Your task to perform on an android device: remove spam from my inbox in the gmail app Image 0: 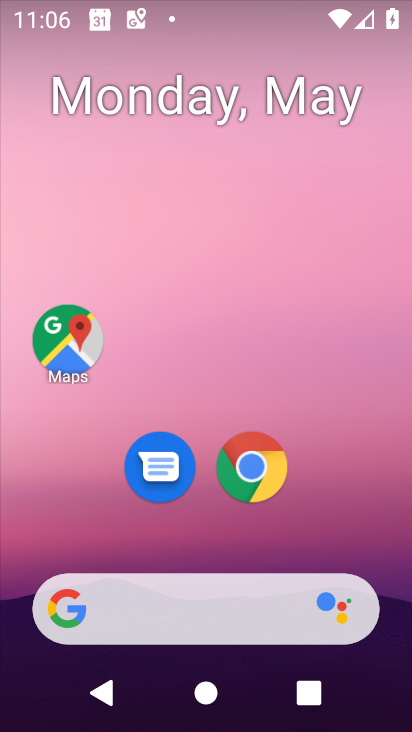
Step 0: drag from (362, 556) to (214, 0)
Your task to perform on an android device: remove spam from my inbox in the gmail app Image 1: 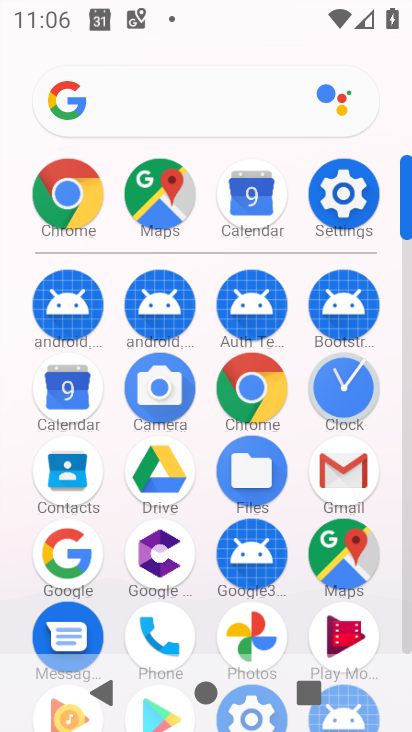
Step 1: click (326, 473)
Your task to perform on an android device: remove spam from my inbox in the gmail app Image 2: 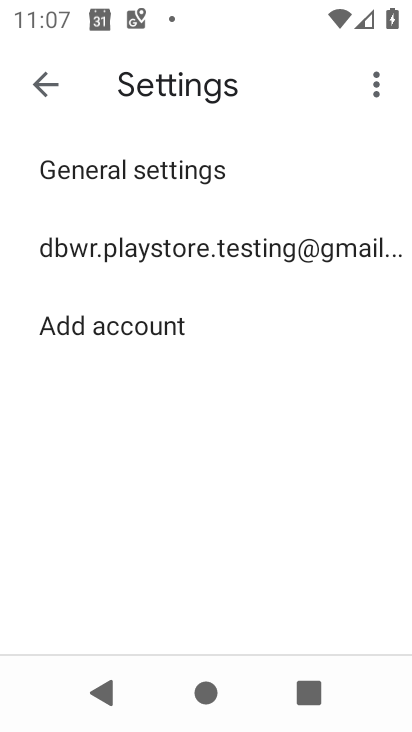
Step 2: click (142, 250)
Your task to perform on an android device: remove spam from my inbox in the gmail app Image 3: 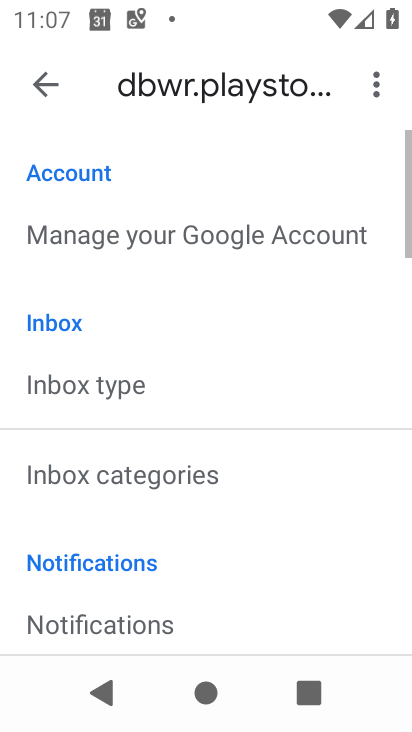
Step 3: click (143, 251)
Your task to perform on an android device: remove spam from my inbox in the gmail app Image 4: 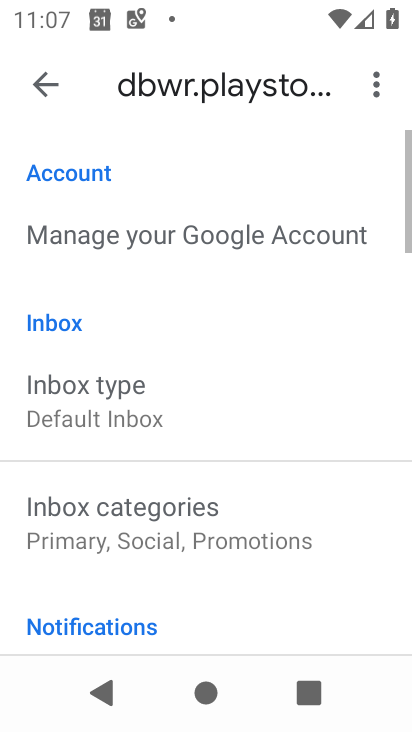
Step 4: click (143, 251)
Your task to perform on an android device: remove spam from my inbox in the gmail app Image 5: 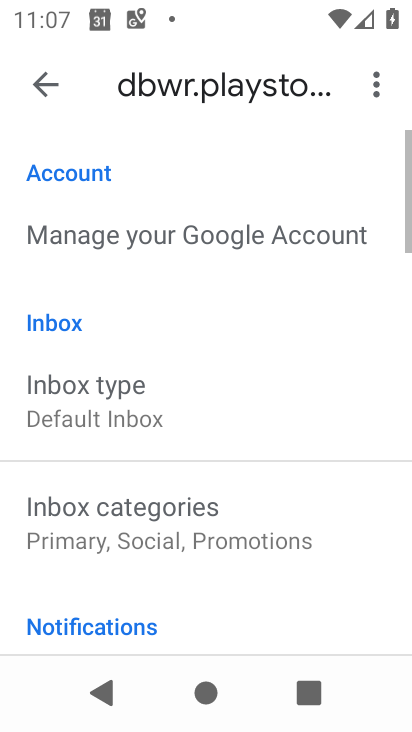
Step 5: click (44, 81)
Your task to perform on an android device: remove spam from my inbox in the gmail app Image 6: 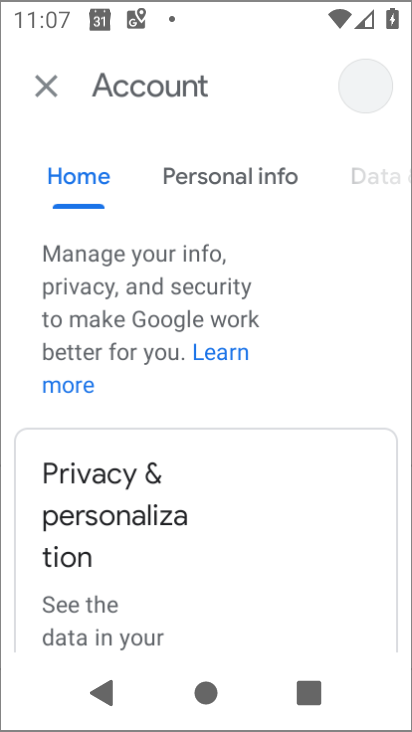
Step 6: click (46, 81)
Your task to perform on an android device: remove spam from my inbox in the gmail app Image 7: 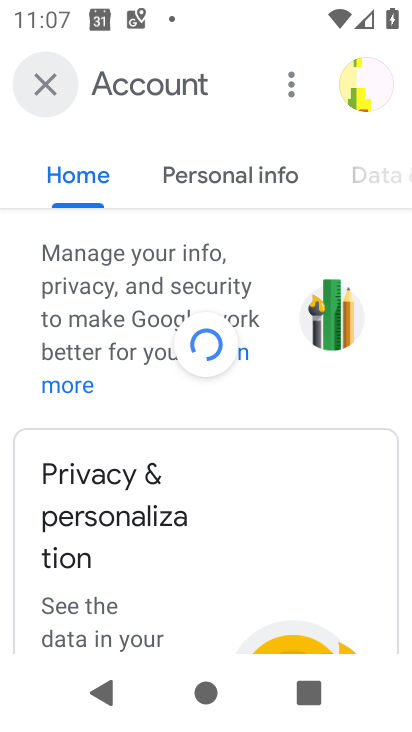
Step 7: click (47, 82)
Your task to perform on an android device: remove spam from my inbox in the gmail app Image 8: 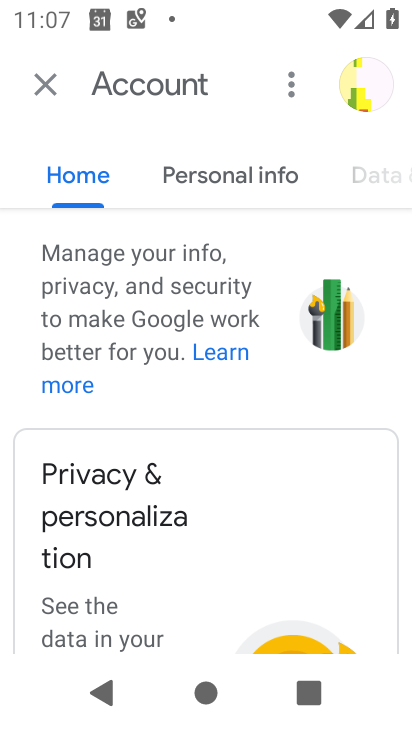
Step 8: click (47, 82)
Your task to perform on an android device: remove spam from my inbox in the gmail app Image 9: 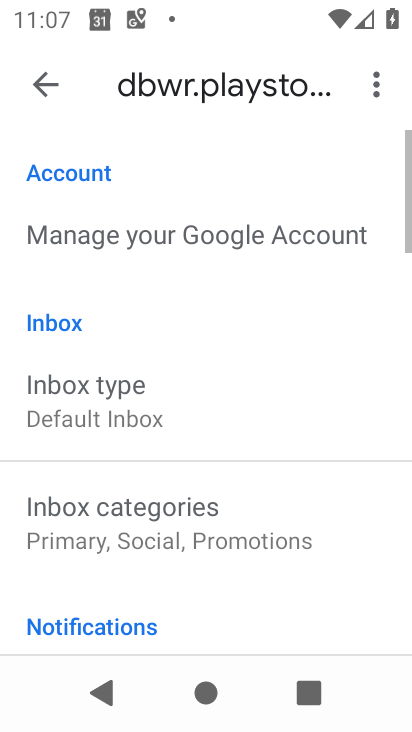
Step 9: press back button
Your task to perform on an android device: remove spam from my inbox in the gmail app Image 10: 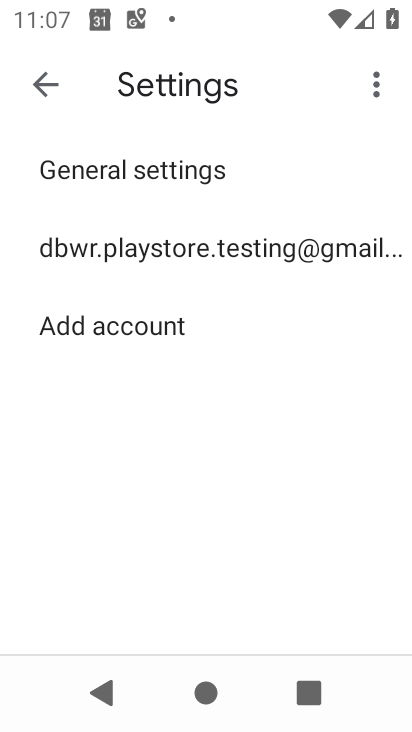
Step 10: press back button
Your task to perform on an android device: remove spam from my inbox in the gmail app Image 11: 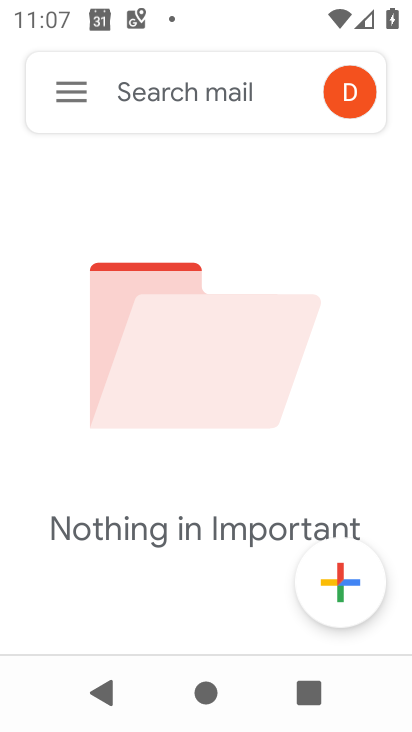
Step 11: press back button
Your task to perform on an android device: remove spam from my inbox in the gmail app Image 12: 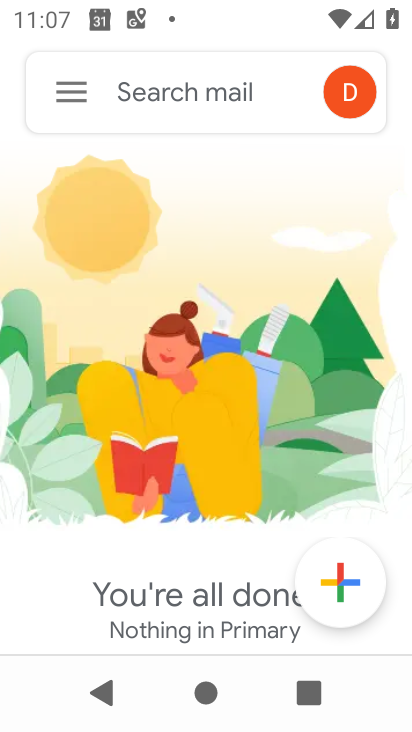
Step 12: click (69, 95)
Your task to perform on an android device: remove spam from my inbox in the gmail app Image 13: 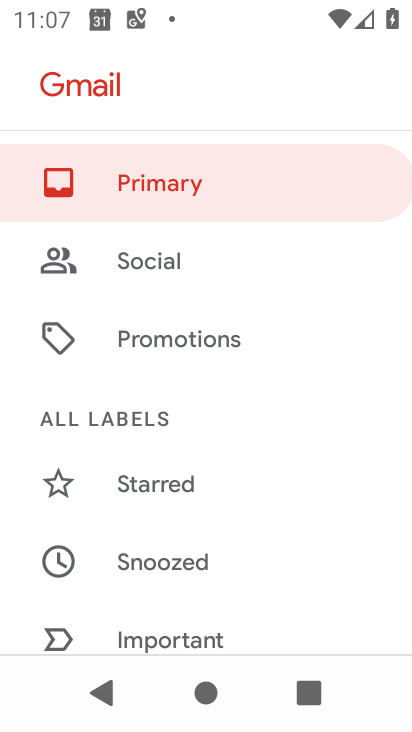
Step 13: drag from (190, 516) to (169, 54)
Your task to perform on an android device: remove spam from my inbox in the gmail app Image 14: 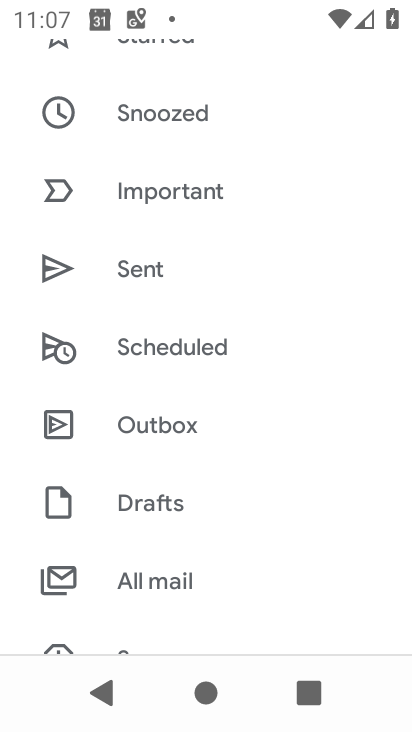
Step 14: click (138, 581)
Your task to perform on an android device: remove spam from my inbox in the gmail app Image 15: 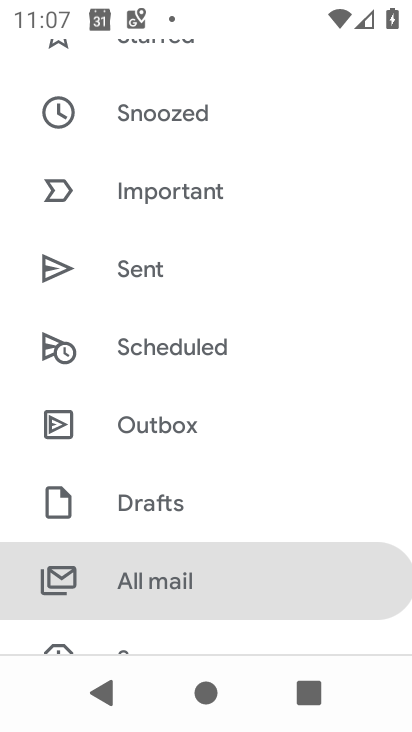
Step 15: click (140, 582)
Your task to perform on an android device: remove spam from my inbox in the gmail app Image 16: 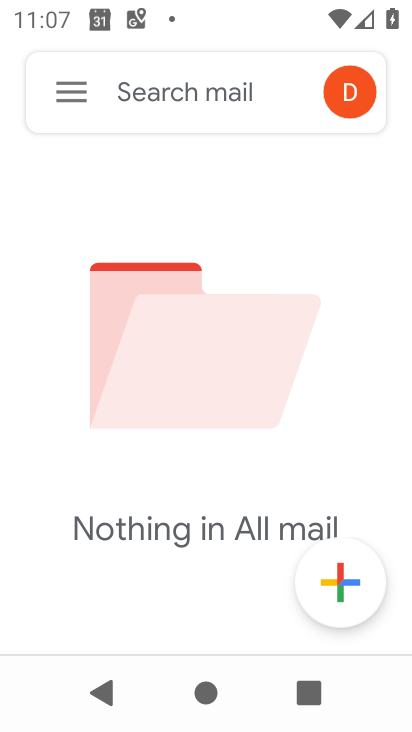
Step 16: task complete